Your task to perform on an android device: What's the weather? Image 0: 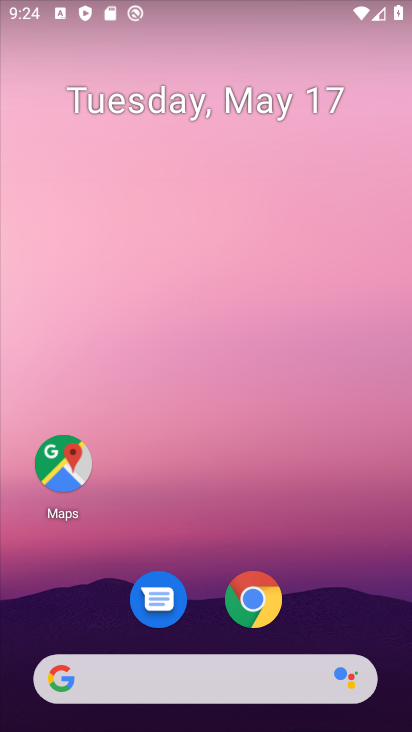
Step 0: click (391, 271)
Your task to perform on an android device: What's the weather? Image 1: 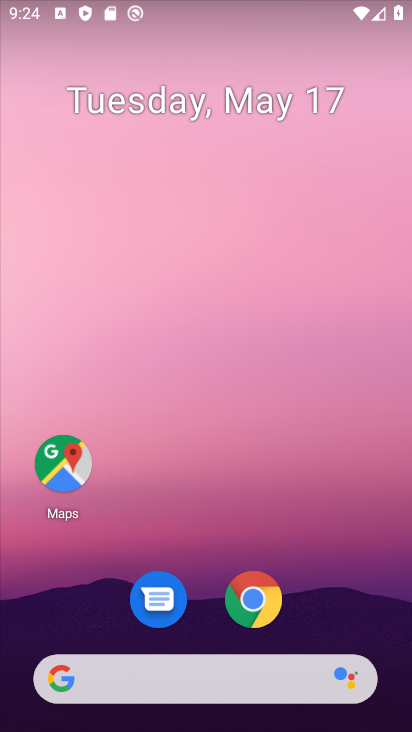
Step 1: drag from (395, 459) to (388, 381)
Your task to perform on an android device: What's the weather? Image 2: 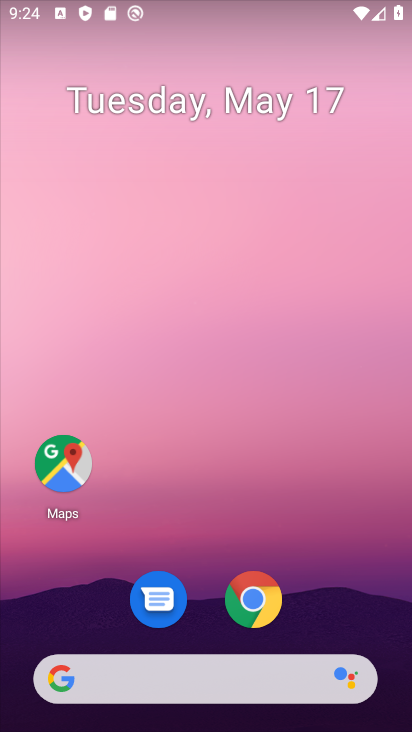
Step 2: click (382, 703)
Your task to perform on an android device: What's the weather? Image 3: 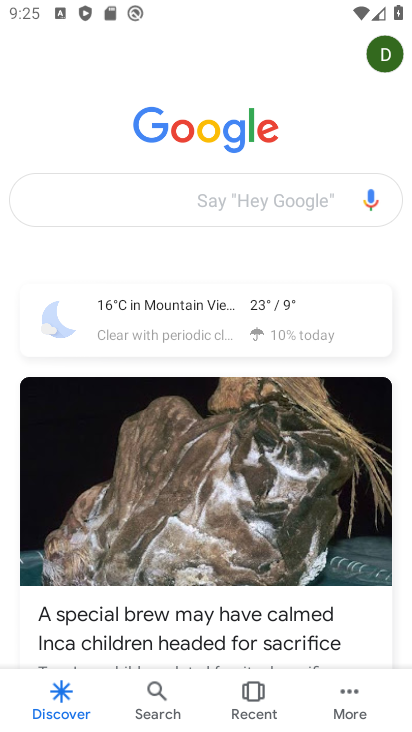
Step 3: click (238, 304)
Your task to perform on an android device: What's the weather? Image 4: 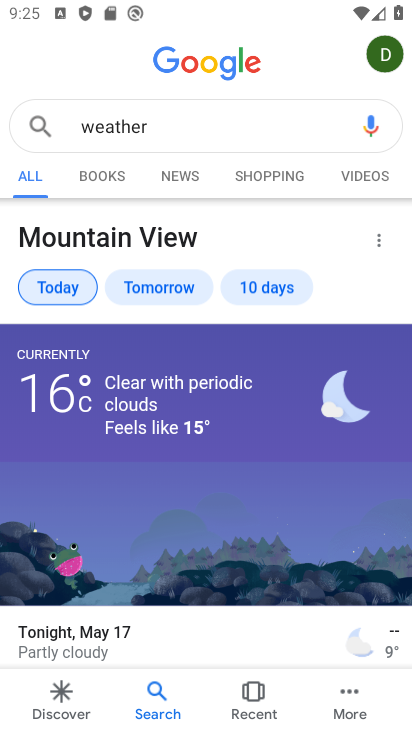
Step 4: task complete